Your task to perform on an android device: stop showing notifications on the lock screen Image 0: 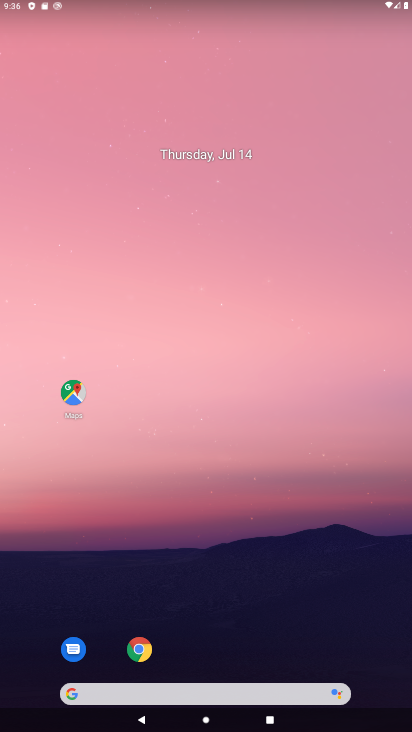
Step 0: drag from (156, 598) to (138, 256)
Your task to perform on an android device: stop showing notifications on the lock screen Image 1: 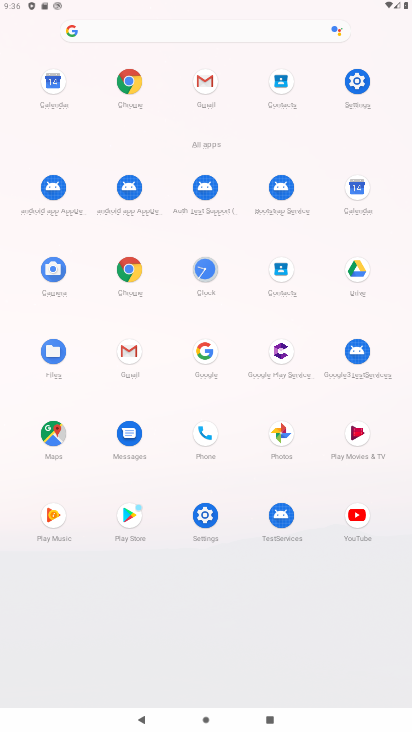
Step 1: click (358, 96)
Your task to perform on an android device: stop showing notifications on the lock screen Image 2: 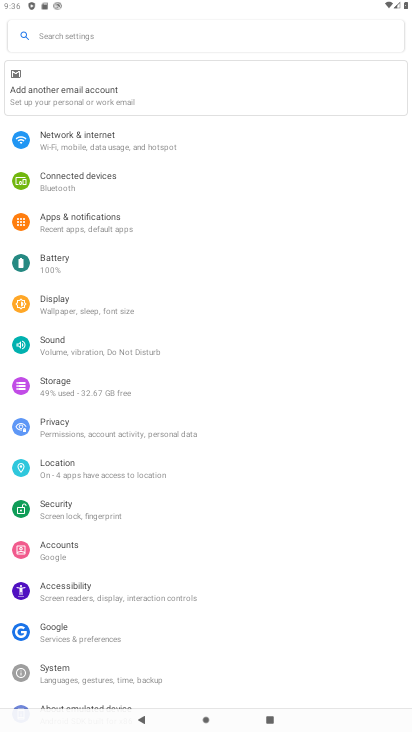
Step 2: click (74, 214)
Your task to perform on an android device: stop showing notifications on the lock screen Image 3: 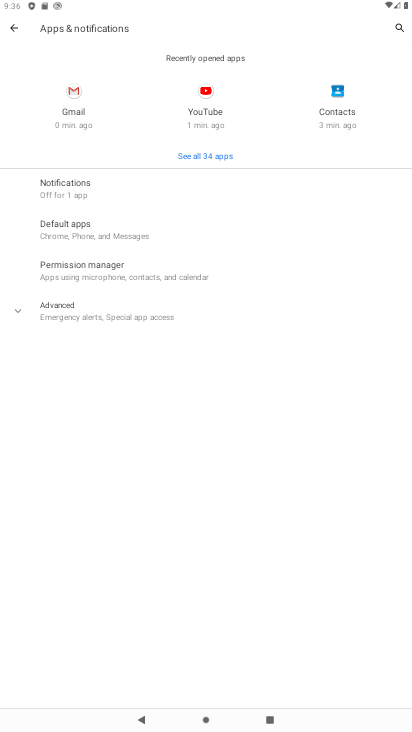
Step 3: click (55, 185)
Your task to perform on an android device: stop showing notifications on the lock screen Image 4: 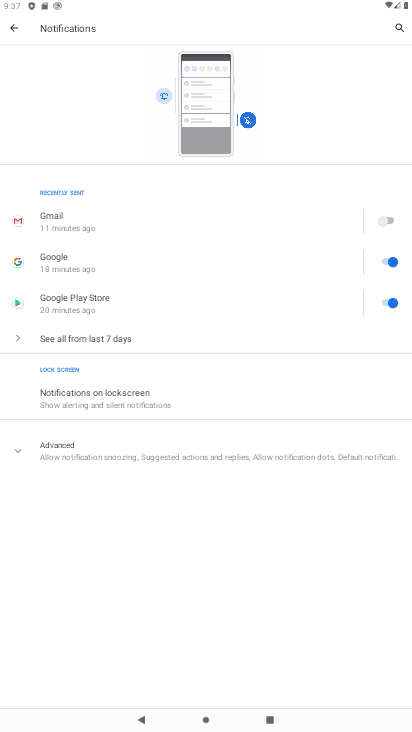
Step 4: click (94, 398)
Your task to perform on an android device: stop showing notifications on the lock screen Image 5: 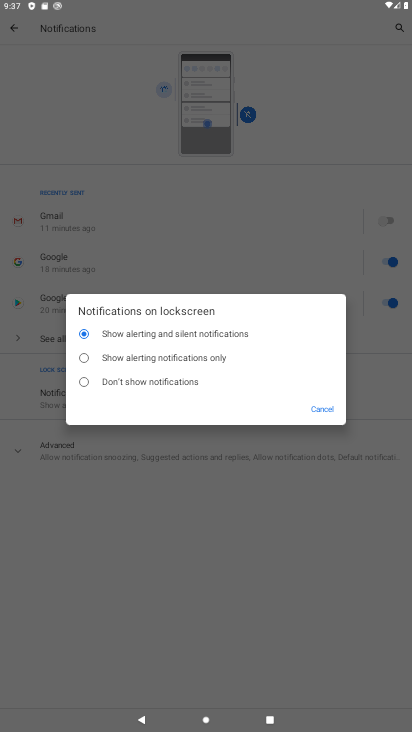
Step 5: click (80, 384)
Your task to perform on an android device: stop showing notifications on the lock screen Image 6: 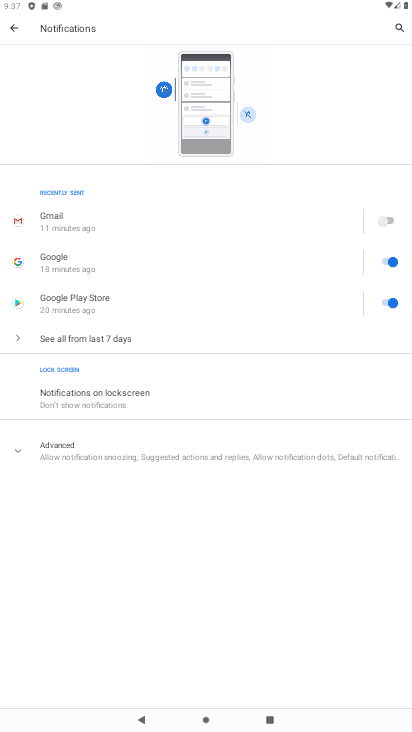
Step 6: task complete